Your task to perform on an android device: create a new album in the google photos Image 0: 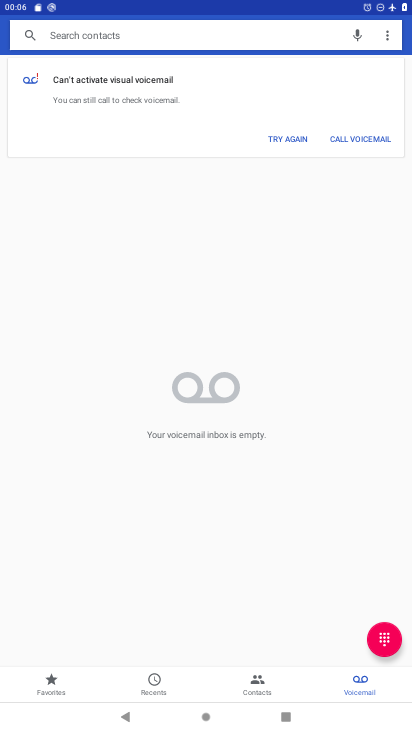
Step 0: drag from (188, 636) to (256, 178)
Your task to perform on an android device: create a new album in the google photos Image 1: 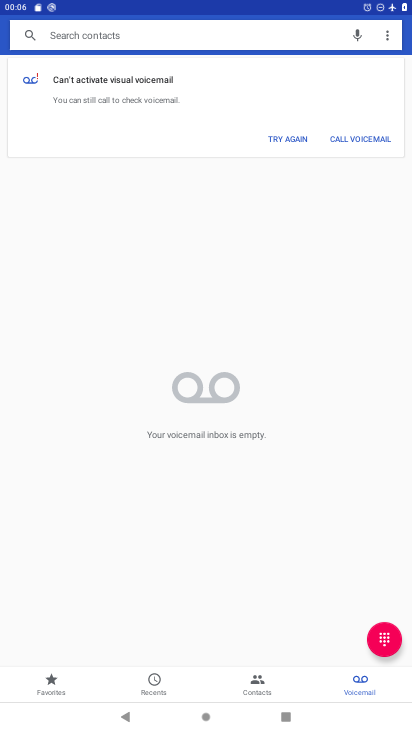
Step 1: press home button
Your task to perform on an android device: create a new album in the google photos Image 2: 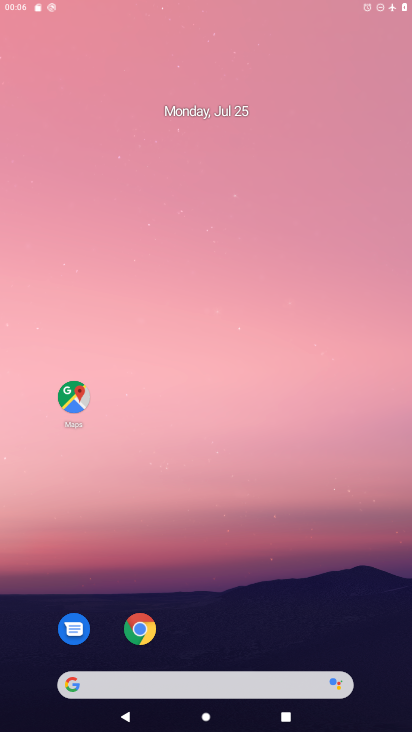
Step 2: drag from (210, 631) to (256, 210)
Your task to perform on an android device: create a new album in the google photos Image 3: 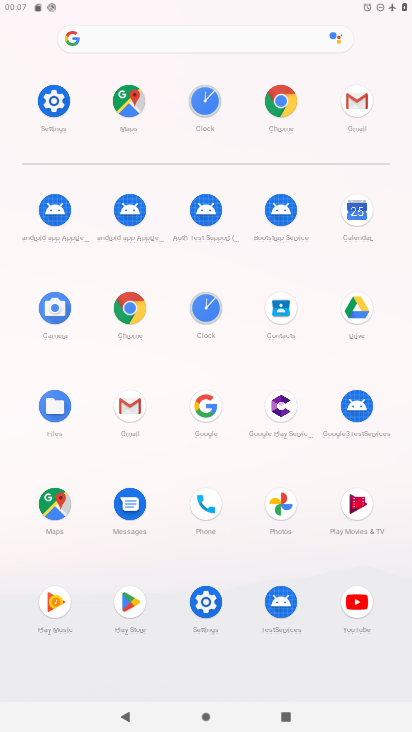
Step 3: click (284, 502)
Your task to perform on an android device: create a new album in the google photos Image 4: 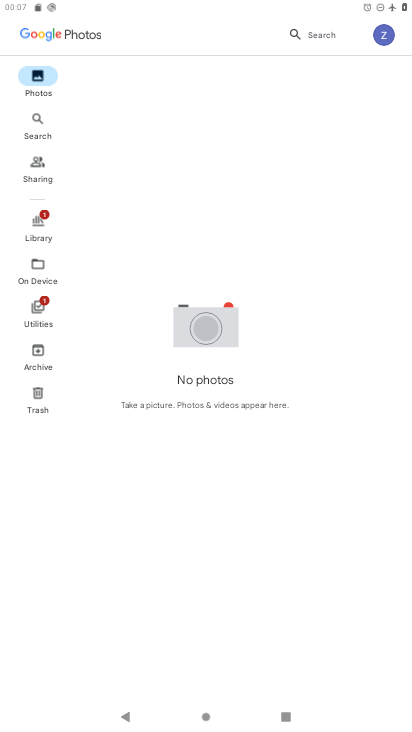
Step 4: click (34, 132)
Your task to perform on an android device: create a new album in the google photos Image 5: 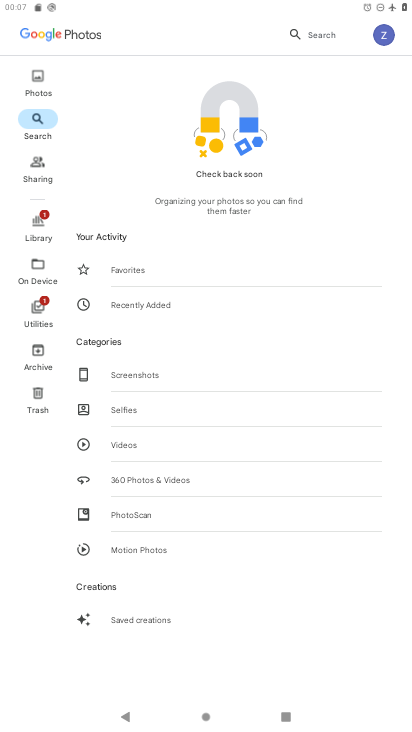
Step 5: click (46, 166)
Your task to perform on an android device: create a new album in the google photos Image 6: 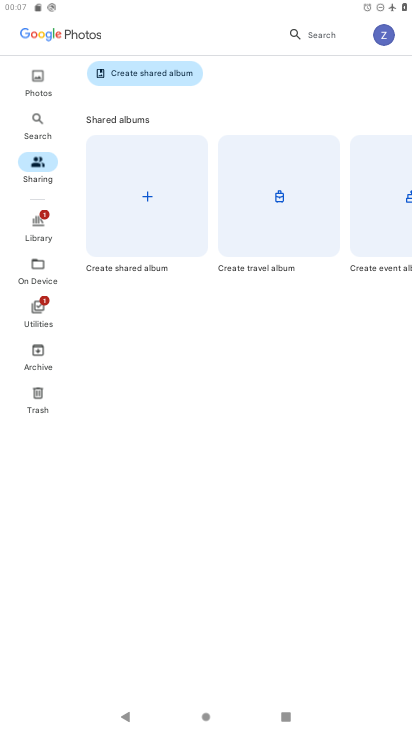
Step 6: click (142, 68)
Your task to perform on an android device: create a new album in the google photos Image 7: 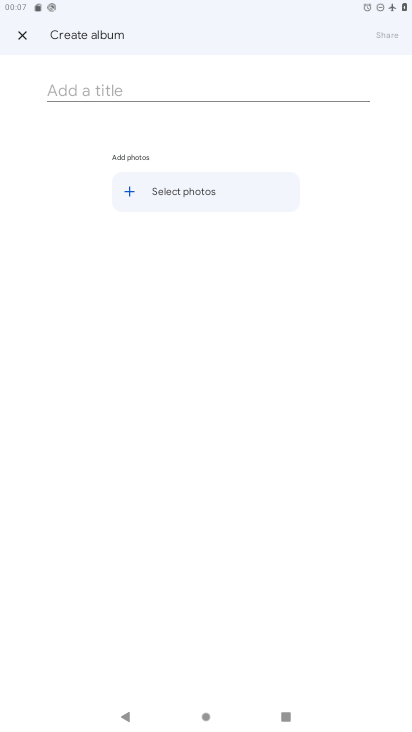
Step 7: click (144, 192)
Your task to perform on an android device: create a new album in the google photos Image 8: 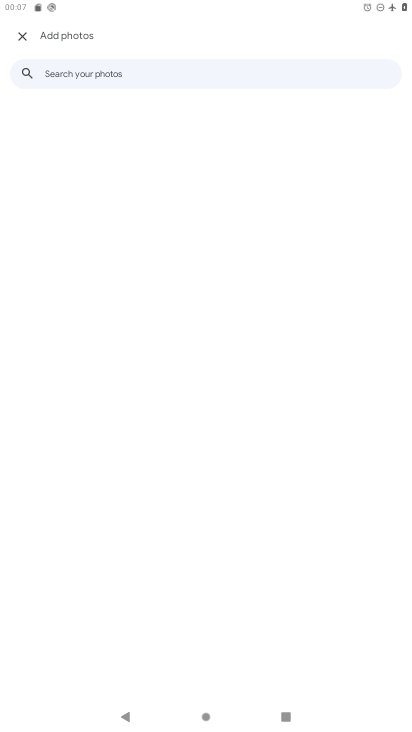
Step 8: click (19, 33)
Your task to perform on an android device: create a new album in the google photos Image 9: 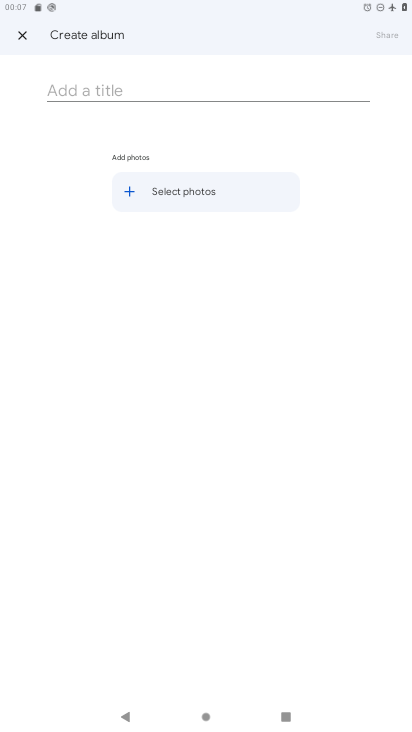
Step 9: click (98, 99)
Your task to perform on an android device: create a new album in the google photos Image 10: 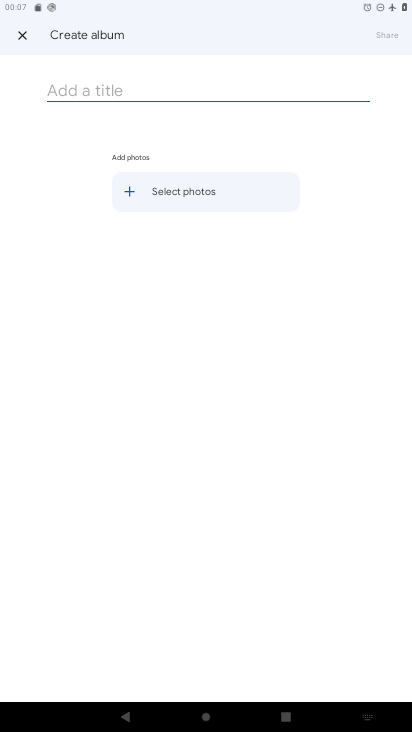
Step 10: type "mmm"
Your task to perform on an android device: create a new album in the google photos Image 11: 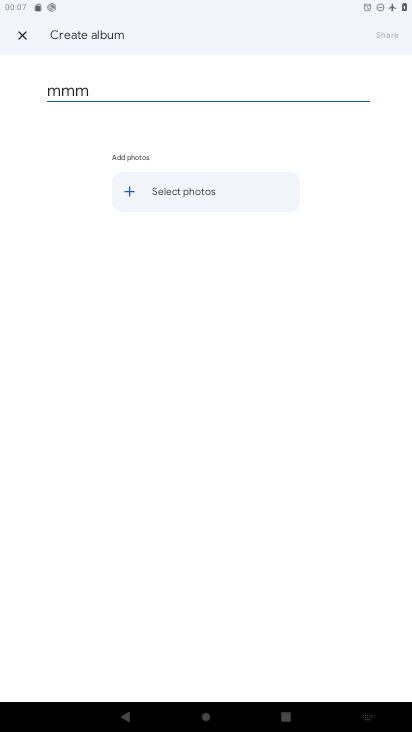
Step 11: click (124, 189)
Your task to perform on an android device: create a new album in the google photos Image 12: 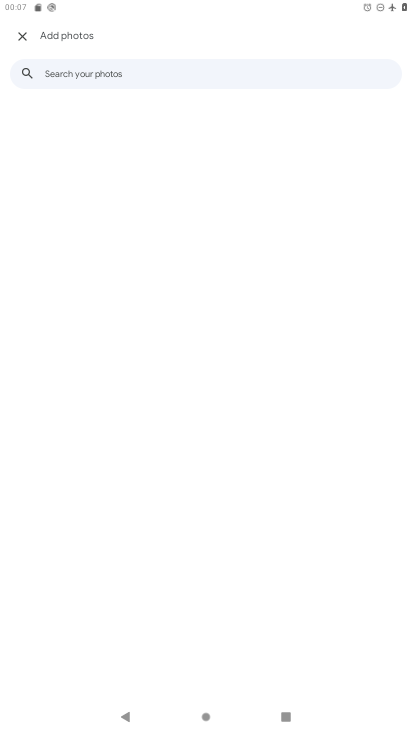
Step 12: click (229, 220)
Your task to perform on an android device: create a new album in the google photos Image 13: 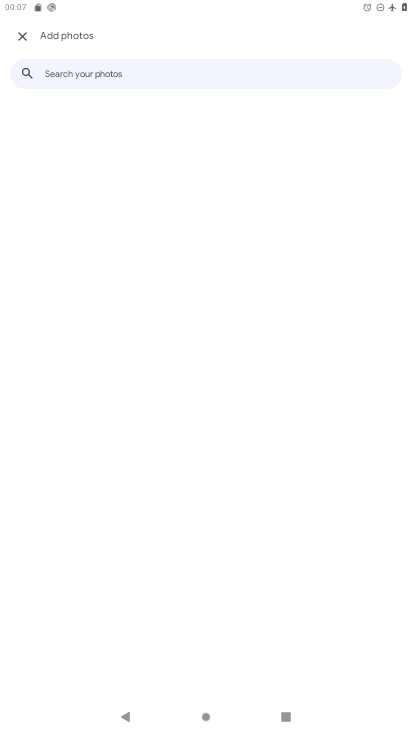
Step 13: click (353, 194)
Your task to perform on an android device: create a new album in the google photos Image 14: 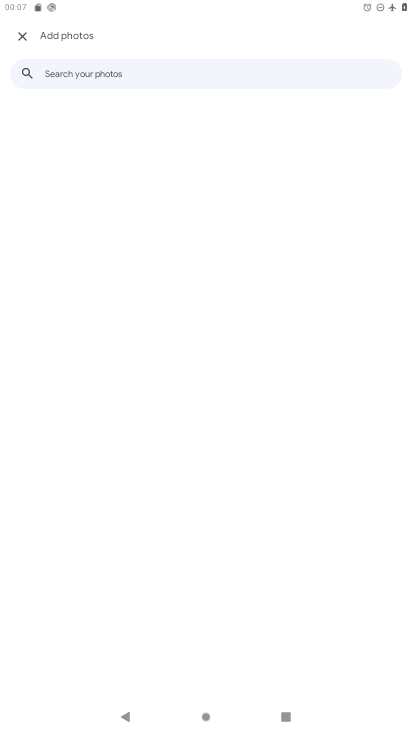
Step 14: click (348, 197)
Your task to perform on an android device: create a new album in the google photos Image 15: 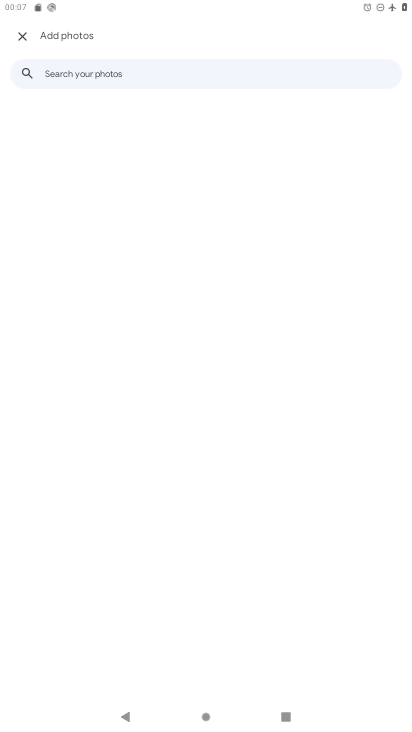
Step 15: click (321, 201)
Your task to perform on an android device: create a new album in the google photos Image 16: 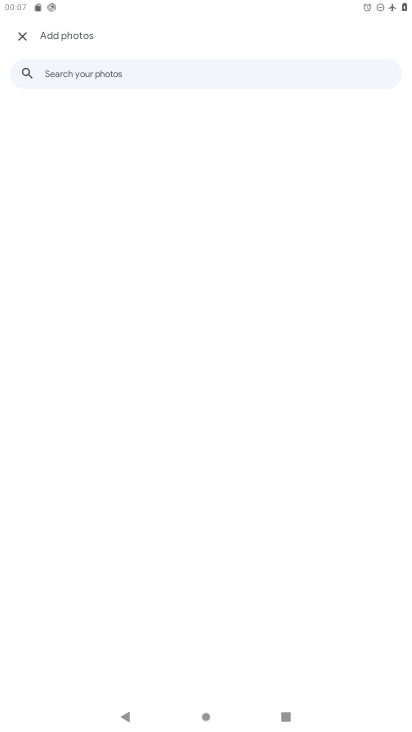
Step 16: click (223, 240)
Your task to perform on an android device: create a new album in the google photos Image 17: 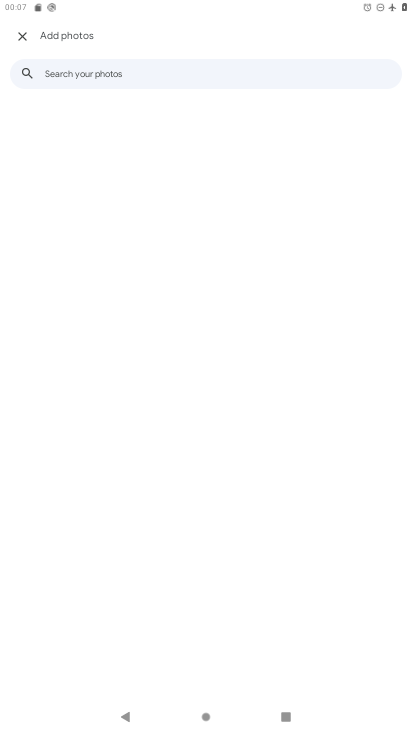
Step 17: task complete